Your task to perform on an android device: turn on the 12-hour format for clock Image 0: 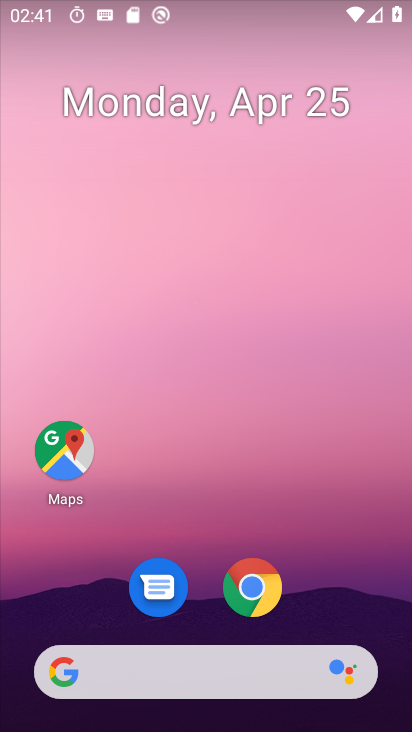
Step 0: drag from (317, 536) to (350, 141)
Your task to perform on an android device: turn on the 12-hour format for clock Image 1: 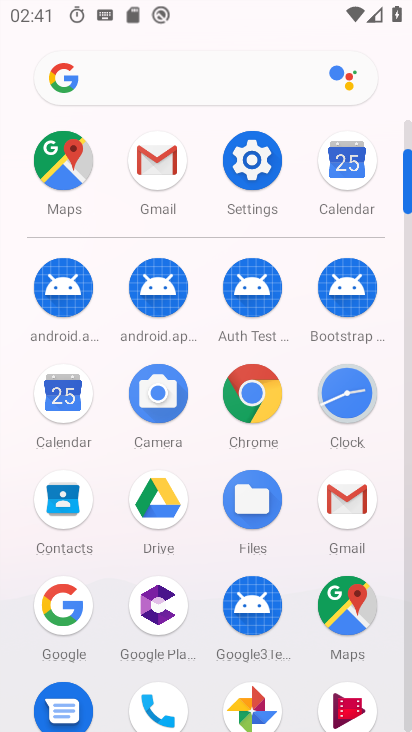
Step 1: click (261, 415)
Your task to perform on an android device: turn on the 12-hour format for clock Image 2: 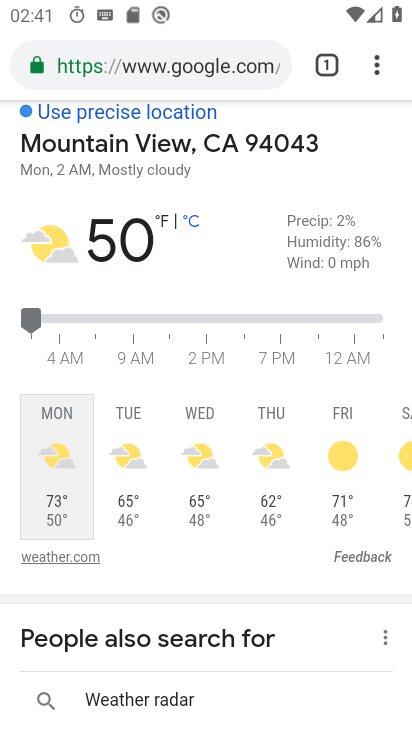
Step 2: press home button
Your task to perform on an android device: turn on the 12-hour format for clock Image 3: 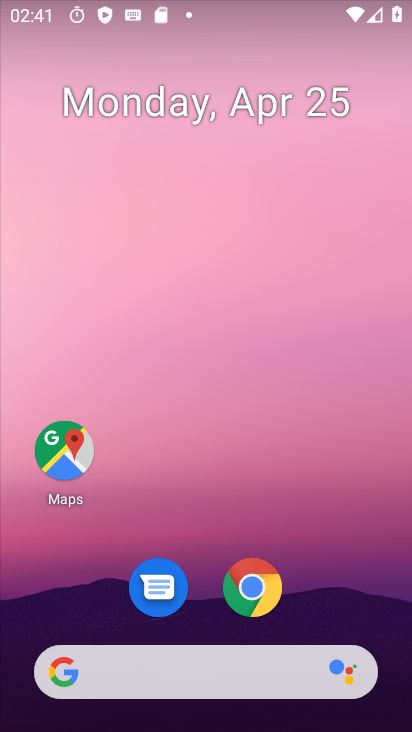
Step 3: drag from (386, 604) to (310, 187)
Your task to perform on an android device: turn on the 12-hour format for clock Image 4: 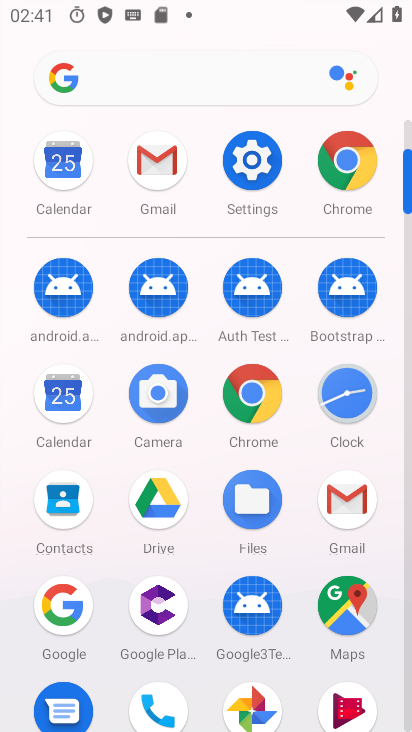
Step 4: click (366, 385)
Your task to perform on an android device: turn on the 12-hour format for clock Image 5: 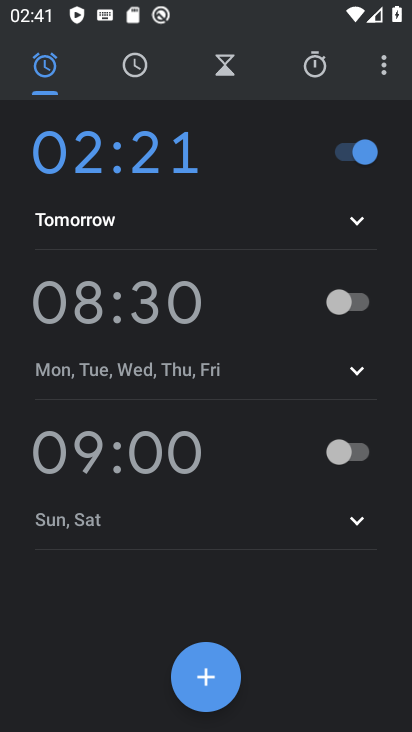
Step 5: click (388, 66)
Your task to perform on an android device: turn on the 12-hour format for clock Image 6: 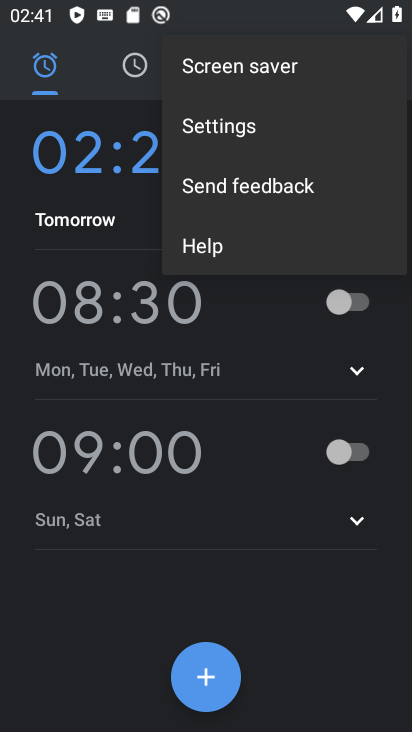
Step 6: click (261, 129)
Your task to perform on an android device: turn on the 12-hour format for clock Image 7: 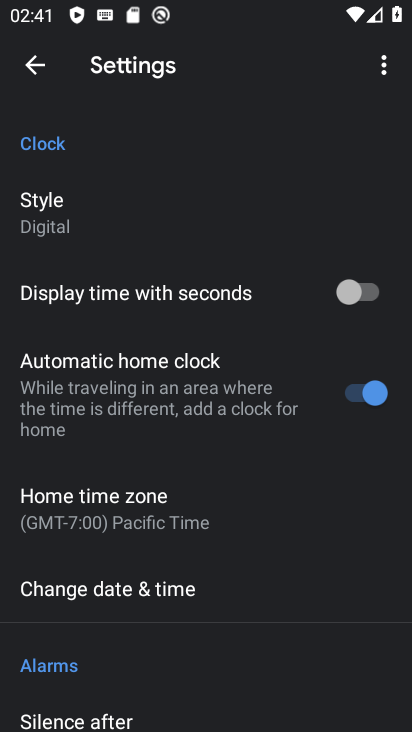
Step 7: drag from (182, 521) to (281, 56)
Your task to perform on an android device: turn on the 12-hour format for clock Image 8: 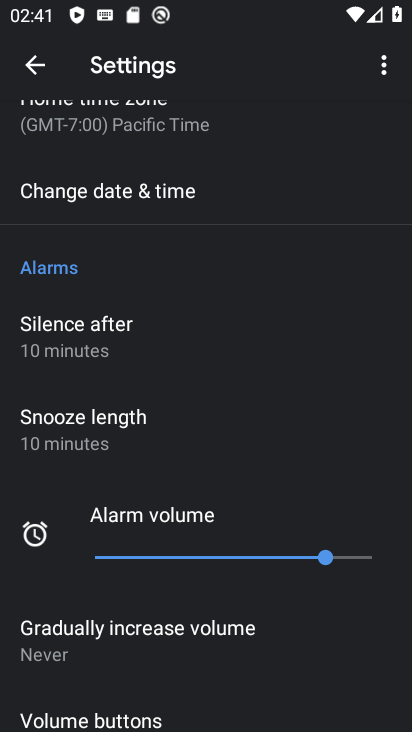
Step 8: drag from (171, 409) to (250, 29)
Your task to perform on an android device: turn on the 12-hour format for clock Image 9: 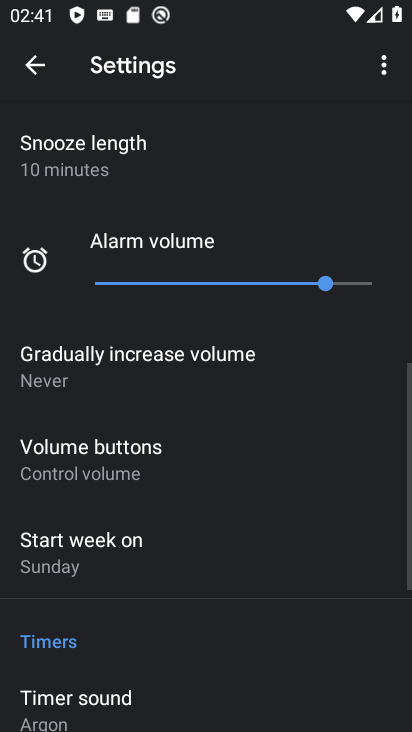
Step 9: drag from (182, 201) to (176, 553)
Your task to perform on an android device: turn on the 12-hour format for clock Image 10: 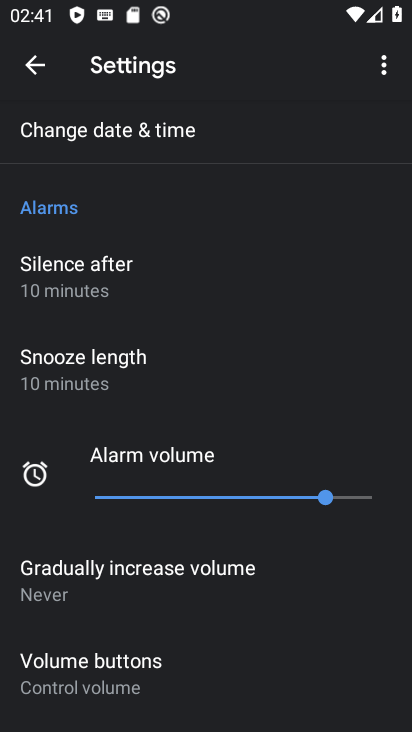
Step 10: click (164, 148)
Your task to perform on an android device: turn on the 12-hour format for clock Image 11: 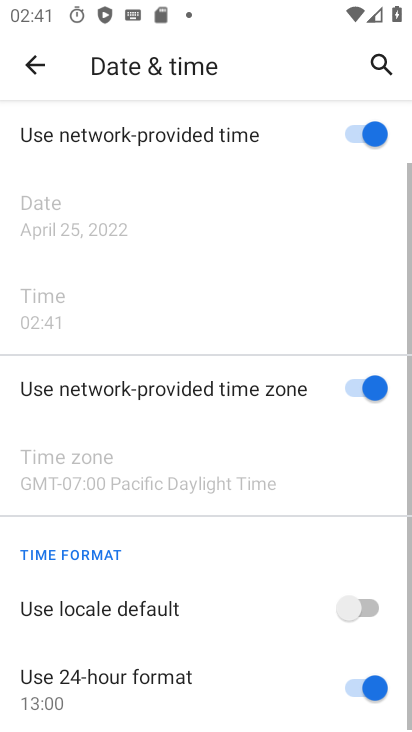
Step 11: drag from (195, 564) to (216, 116)
Your task to perform on an android device: turn on the 12-hour format for clock Image 12: 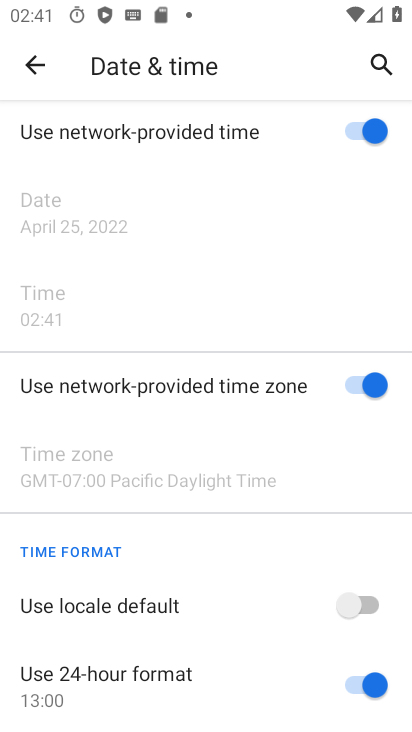
Step 12: click (367, 602)
Your task to perform on an android device: turn on the 12-hour format for clock Image 13: 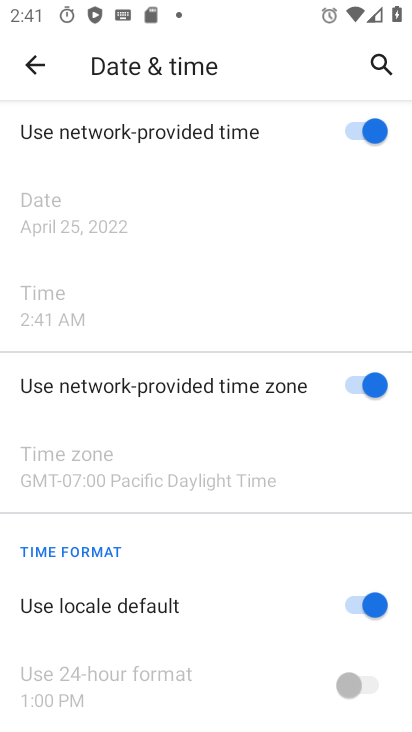
Step 13: task complete